Your task to perform on an android device: see sites visited before in the chrome app Image 0: 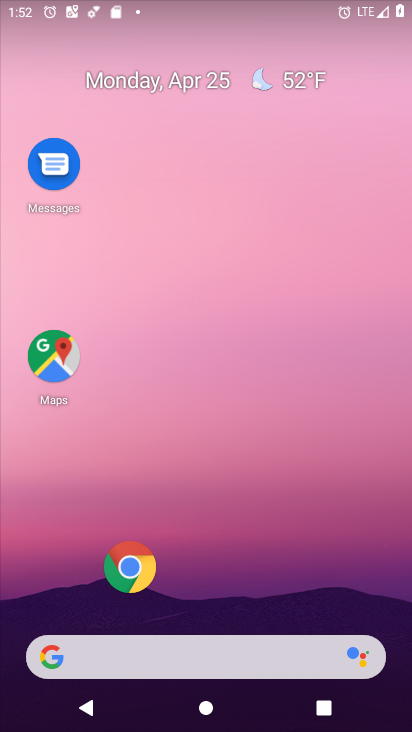
Step 0: drag from (244, 620) to (239, 203)
Your task to perform on an android device: see sites visited before in the chrome app Image 1: 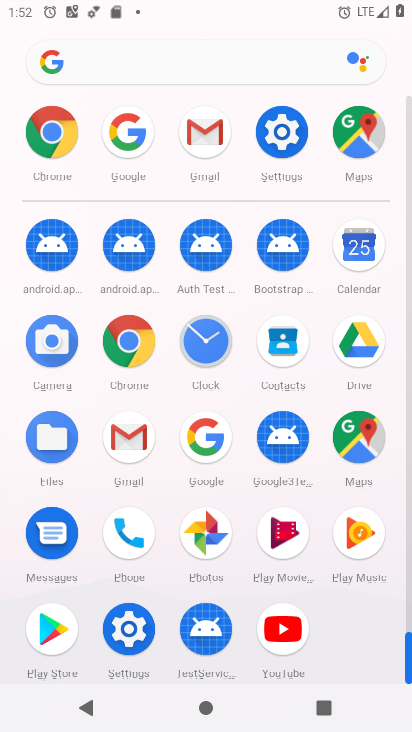
Step 1: click (124, 337)
Your task to perform on an android device: see sites visited before in the chrome app Image 2: 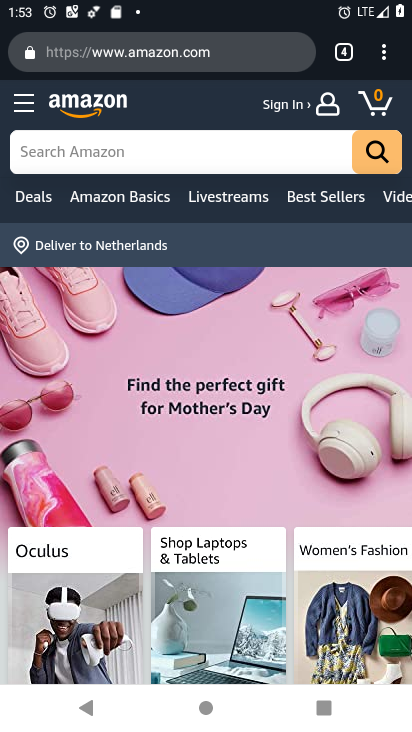
Step 2: click (380, 55)
Your task to perform on an android device: see sites visited before in the chrome app Image 3: 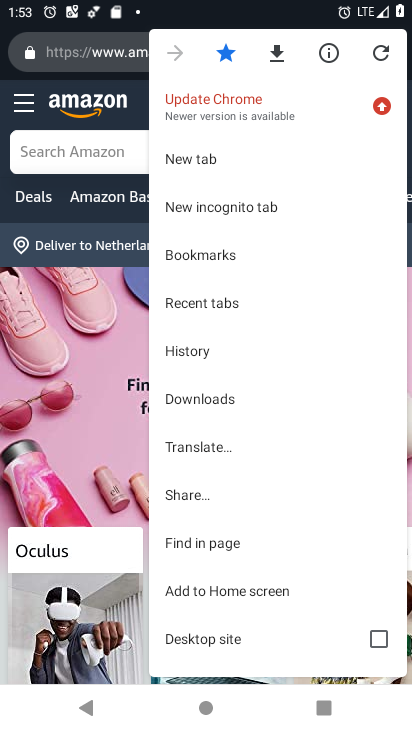
Step 3: click (206, 359)
Your task to perform on an android device: see sites visited before in the chrome app Image 4: 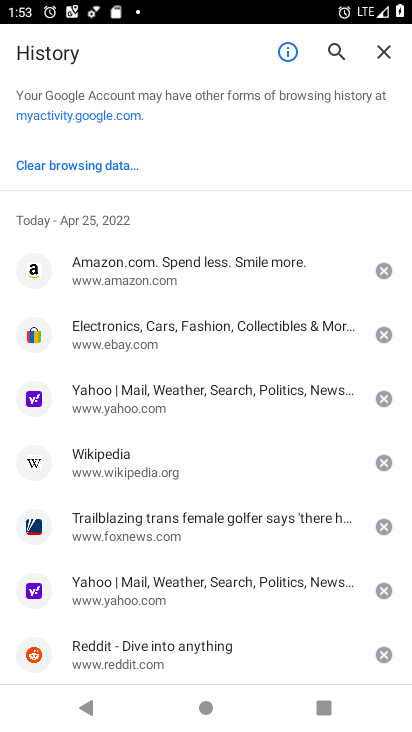
Step 4: task complete